Your task to perform on an android device: Set the phone to "Do not disturb". Image 0: 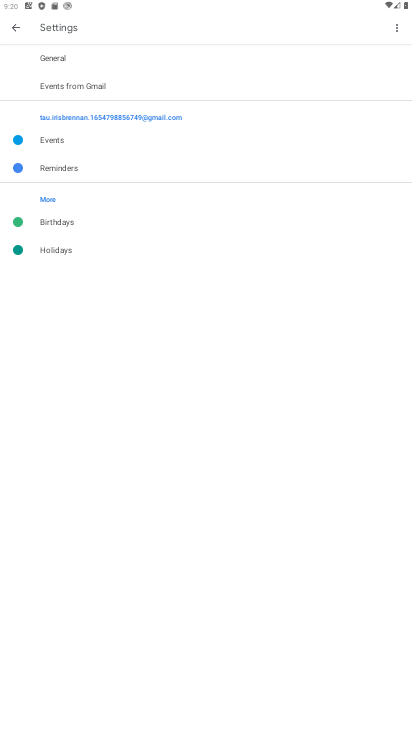
Step 0: press home button
Your task to perform on an android device: Set the phone to "Do not disturb". Image 1: 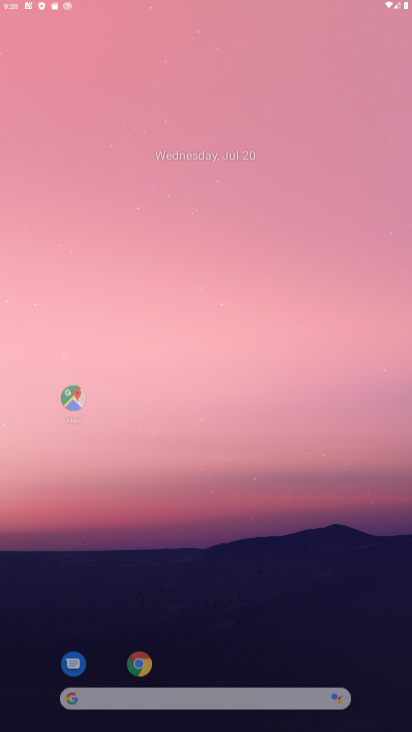
Step 1: drag from (215, 601) to (206, 3)
Your task to perform on an android device: Set the phone to "Do not disturb". Image 2: 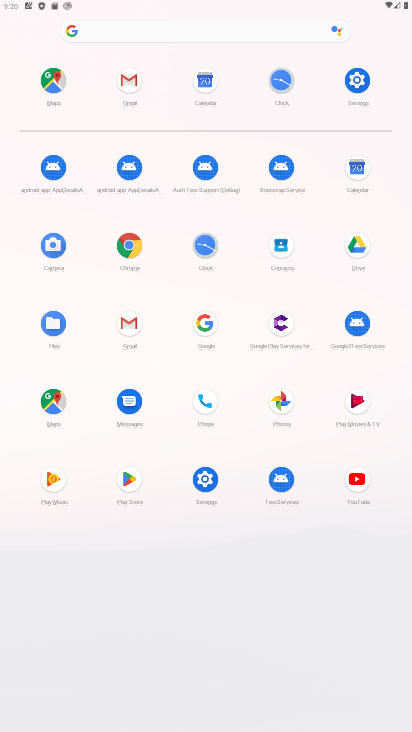
Step 2: click (201, 477)
Your task to perform on an android device: Set the phone to "Do not disturb". Image 3: 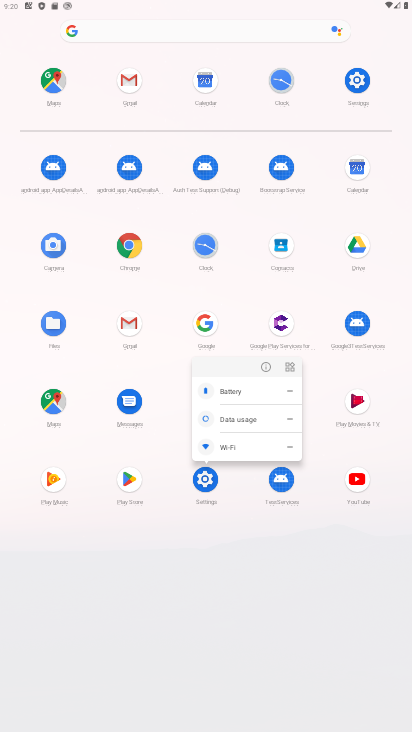
Step 3: click (266, 367)
Your task to perform on an android device: Set the phone to "Do not disturb". Image 4: 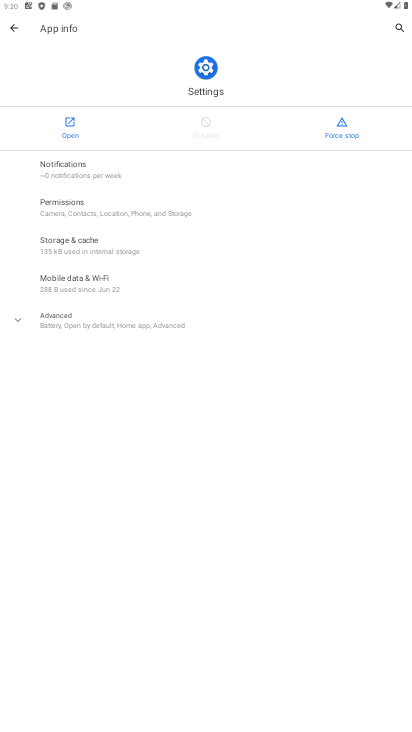
Step 4: click (66, 130)
Your task to perform on an android device: Set the phone to "Do not disturb". Image 5: 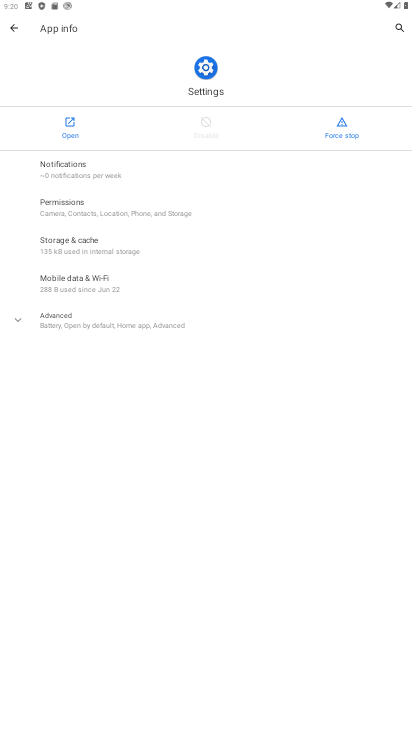
Step 5: click (66, 130)
Your task to perform on an android device: Set the phone to "Do not disturb". Image 6: 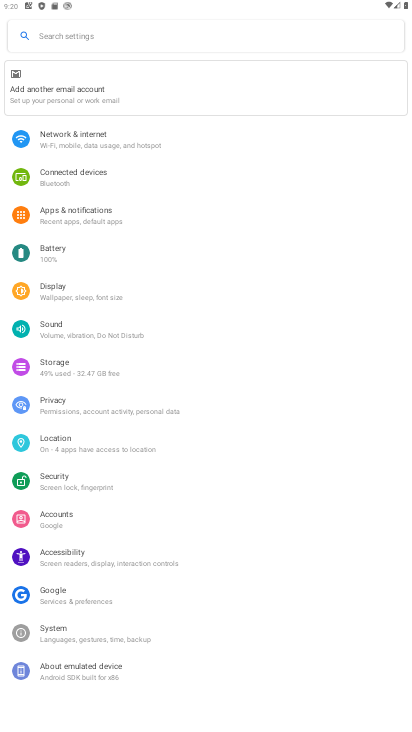
Step 6: click (90, 206)
Your task to perform on an android device: Set the phone to "Do not disturb". Image 7: 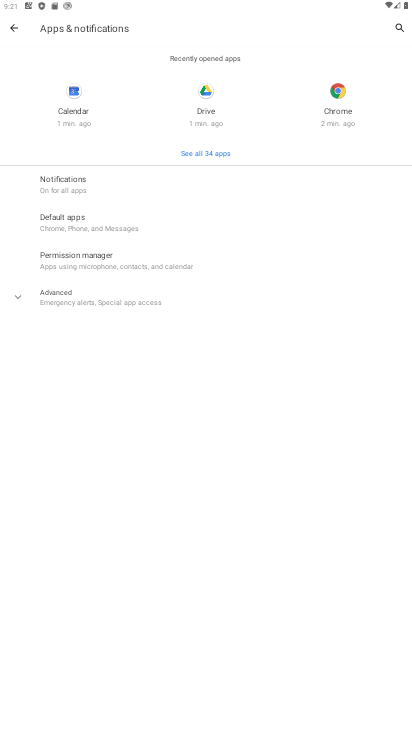
Step 7: click (86, 182)
Your task to perform on an android device: Set the phone to "Do not disturb". Image 8: 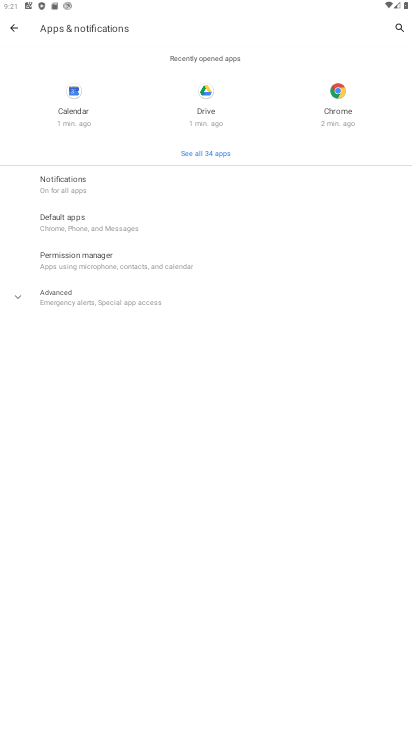
Step 8: click (86, 182)
Your task to perform on an android device: Set the phone to "Do not disturb". Image 9: 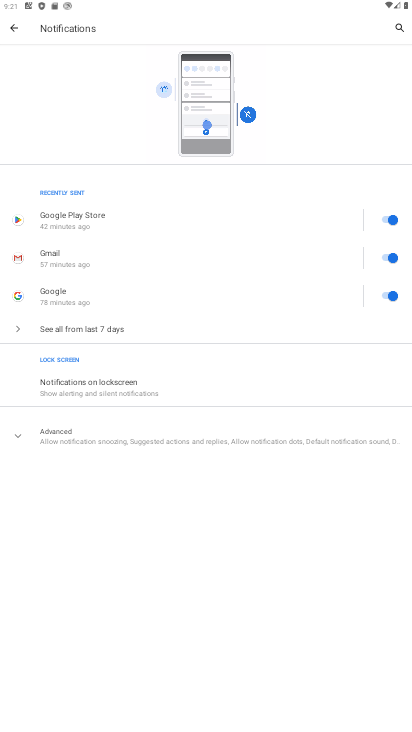
Step 9: click (82, 436)
Your task to perform on an android device: Set the phone to "Do not disturb". Image 10: 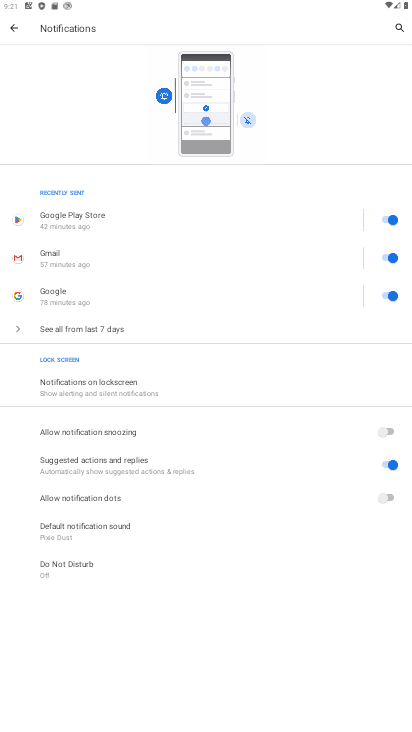
Step 10: click (75, 568)
Your task to perform on an android device: Set the phone to "Do not disturb". Image 11: 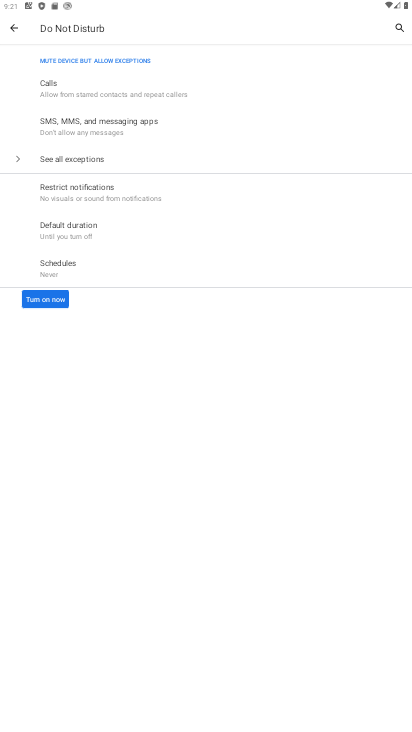
Step 11: click (45, 300)
Your task to perform on an android device: Set the phone to "Do not disturb". Image 12: 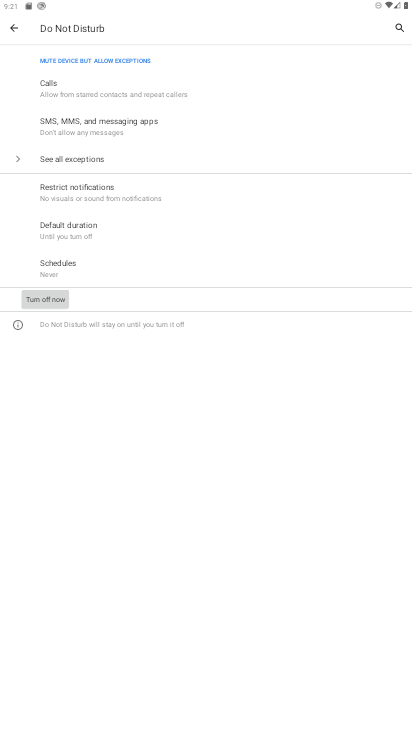
Step 12: task complete